Your task to perform on an android device: turn off sleep mode Image 0: 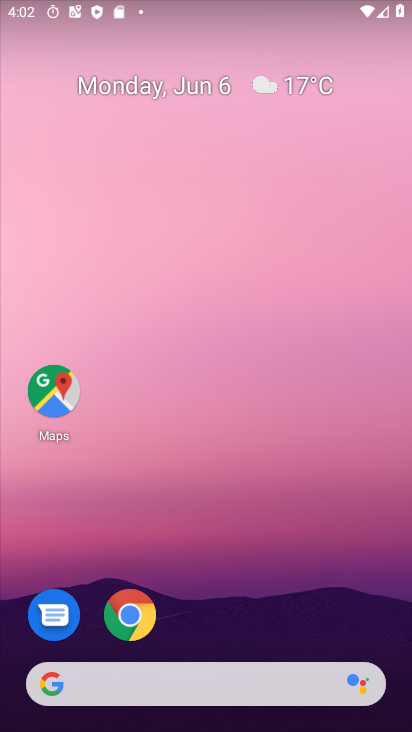
Step 0: drag from (241, 631) to (269, 35)
Your task to perform on an android device: turn off sleep mode Image 1: 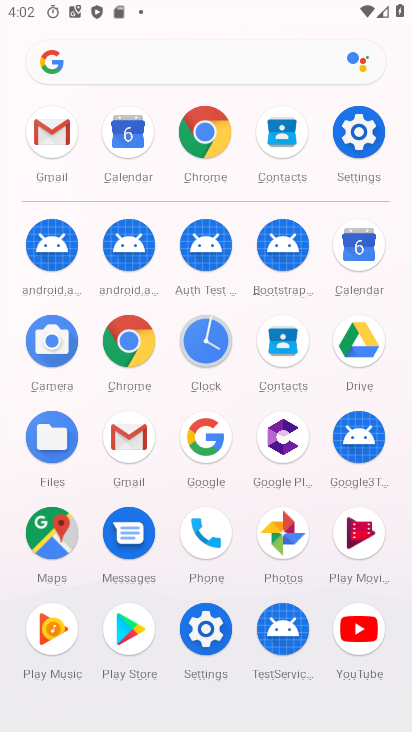
Step 1: click (354, 124)
Your task to perform on an android device: turn off sleep mode Image 2: 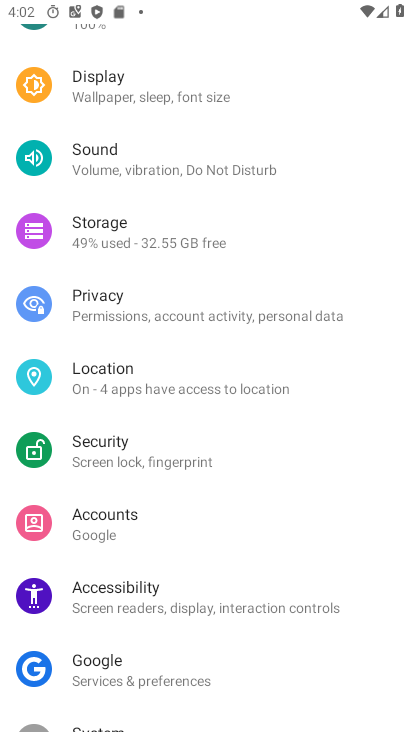
Step 2: click (194, 100)
Your task to perform on an android device: turn off sleep mode Image 3: 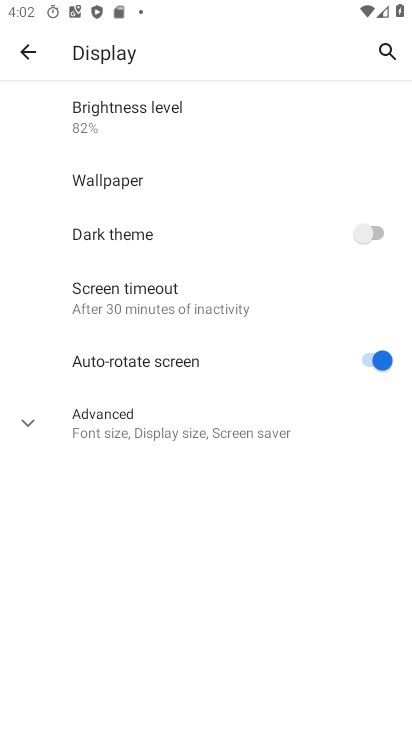
Step 3: task complete